Your task to perform on an android device: Search for Italian restaurants on Maps Image 0: 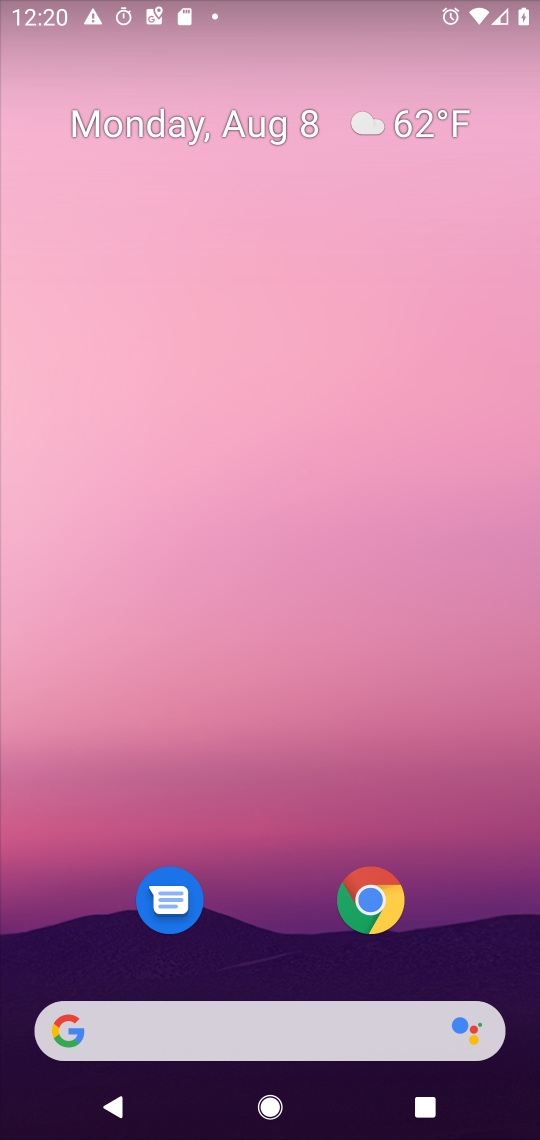
Step 0: press home button
Your task to perform on an android device: Search for Italian restaurants on Maps Image 1: 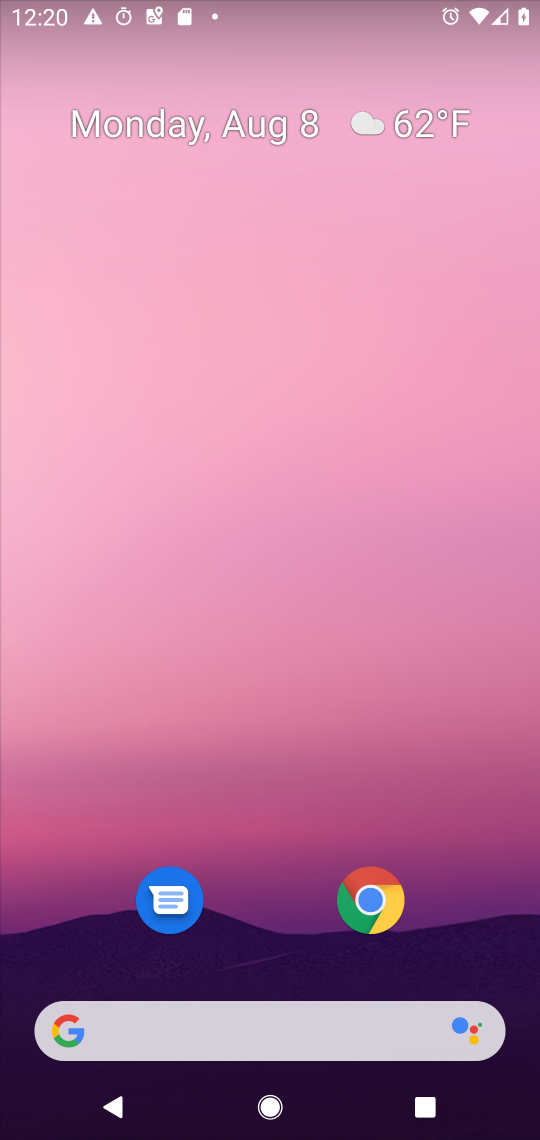
Step 1: drag from (274, 889) to (271, 79)
Your task to perform on an android device: Search for Italian restaurants on Maps Image 2: 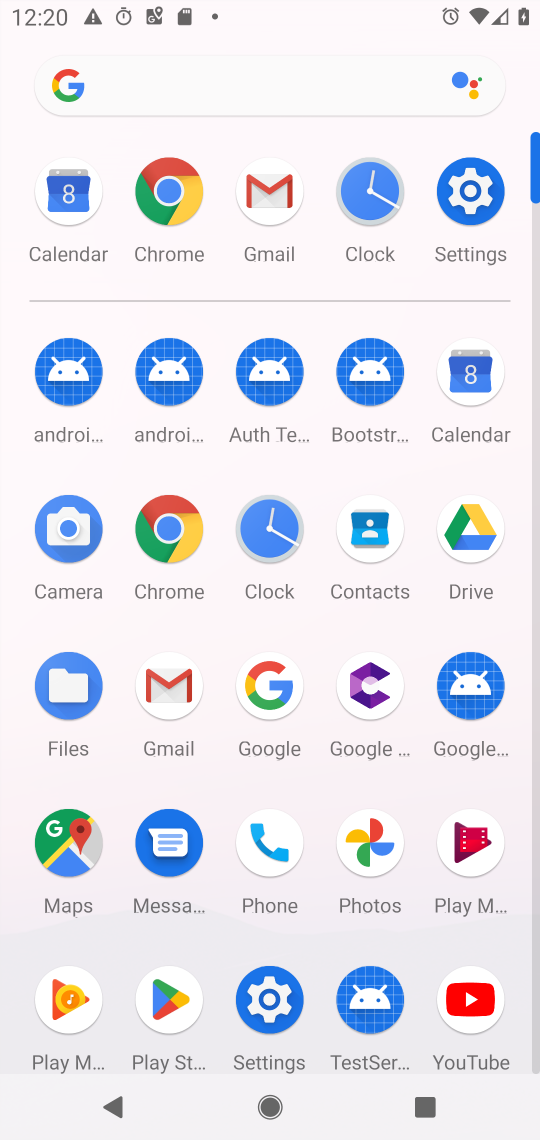
Step 2: click (68, 839)
Your task to perform on an android device: Search for Italian restaurants on Maps Image 3: 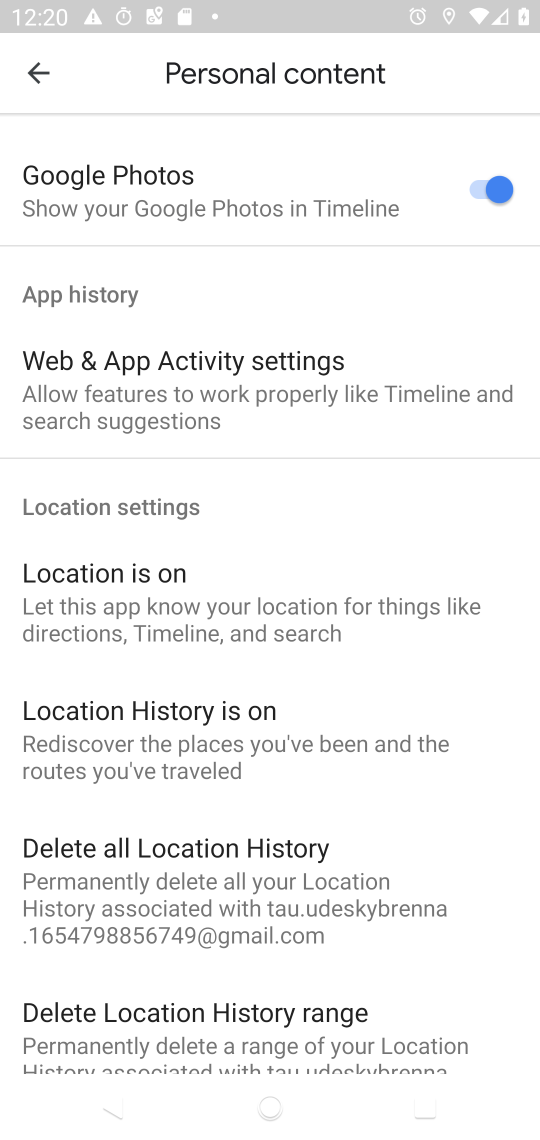
Step 3: click (38, 58)
Your task to perform on an android device: Search for Italian restaurants on Maps Image 4: 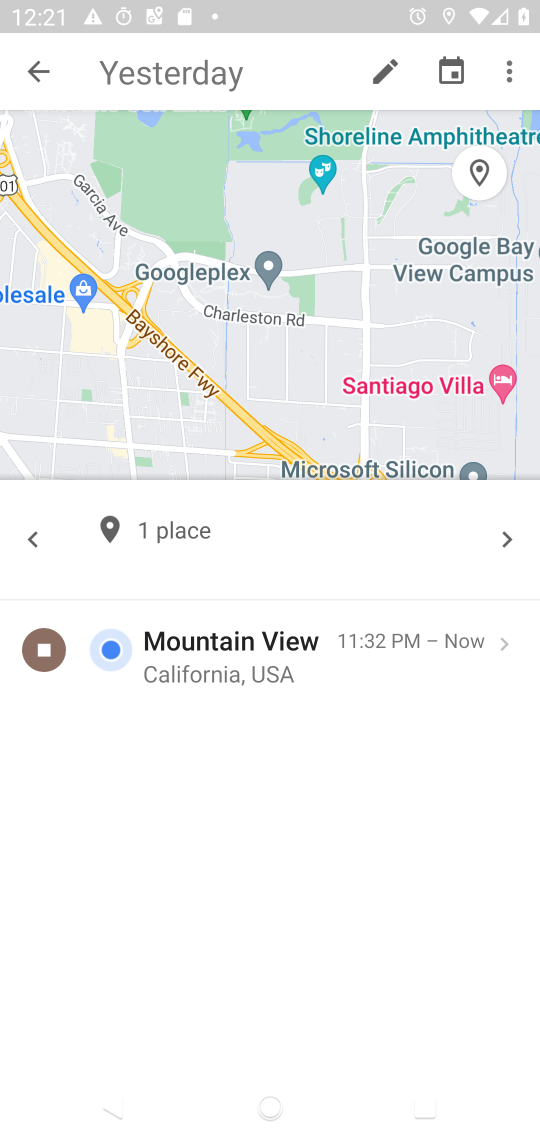
Step 4: click (46, 77)
Your task to perform on an android device: Search for Italian restaurants on Maps Image 5: 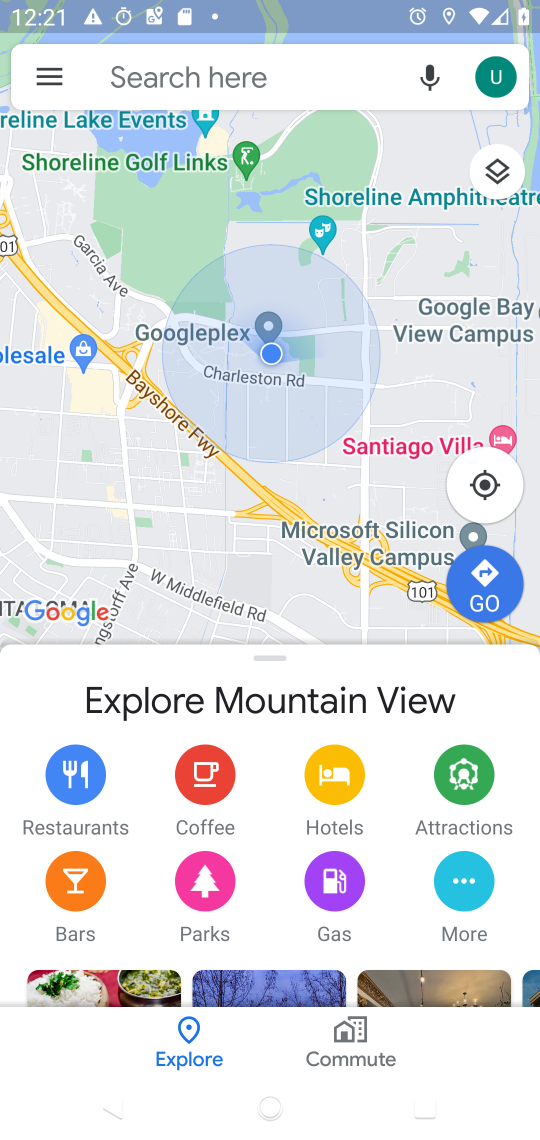
Step 5: click (164, 71)
Your task to perform on an android device: Search for Italian restaurants on Maps Image 6: 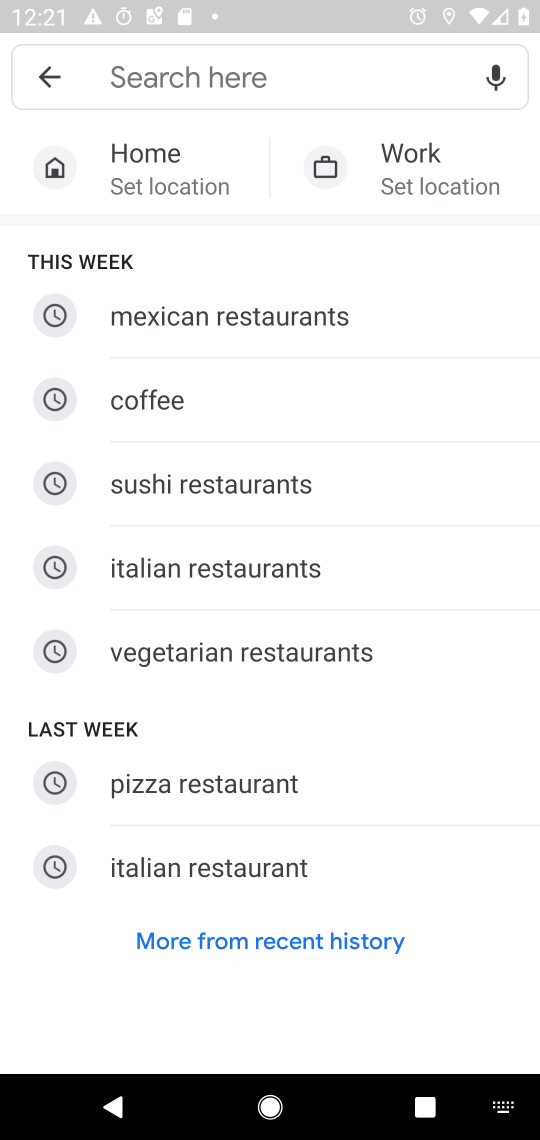
Step 6: click (234, 567)
Your task to perform on an android device: Search for Italian restaurants on Maps Image 7: 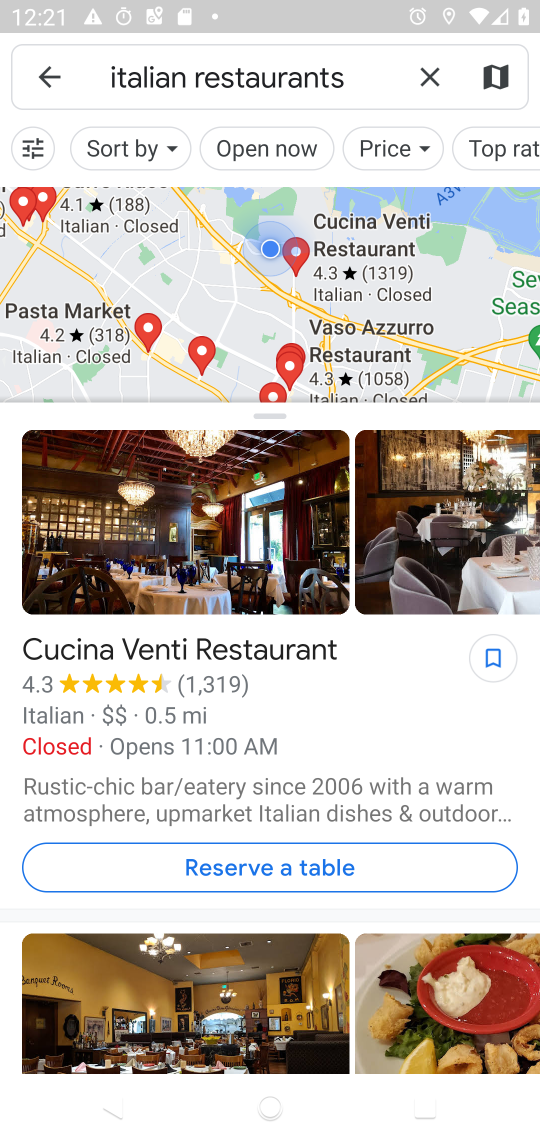
Step 7: drag from (297, 802) to (274, 243)
Your task to perform on an android device: Search for Italian restaurants on Maps Image 8: 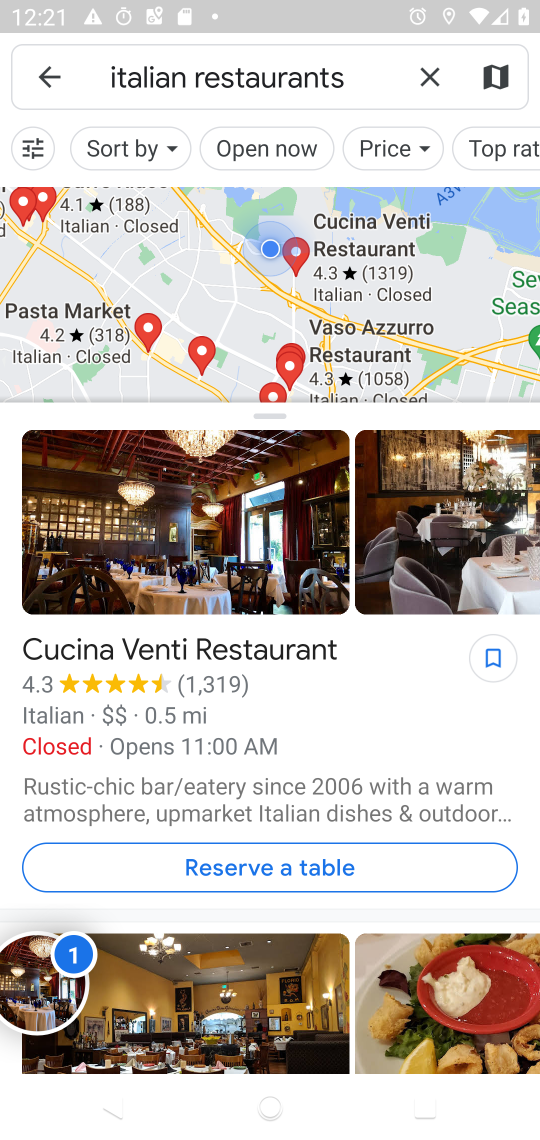
Step 8: drag from (32, 991) to (302, 1082)
Your task to perform on an android device: Search for Italian restaurants on Maps Image 9: 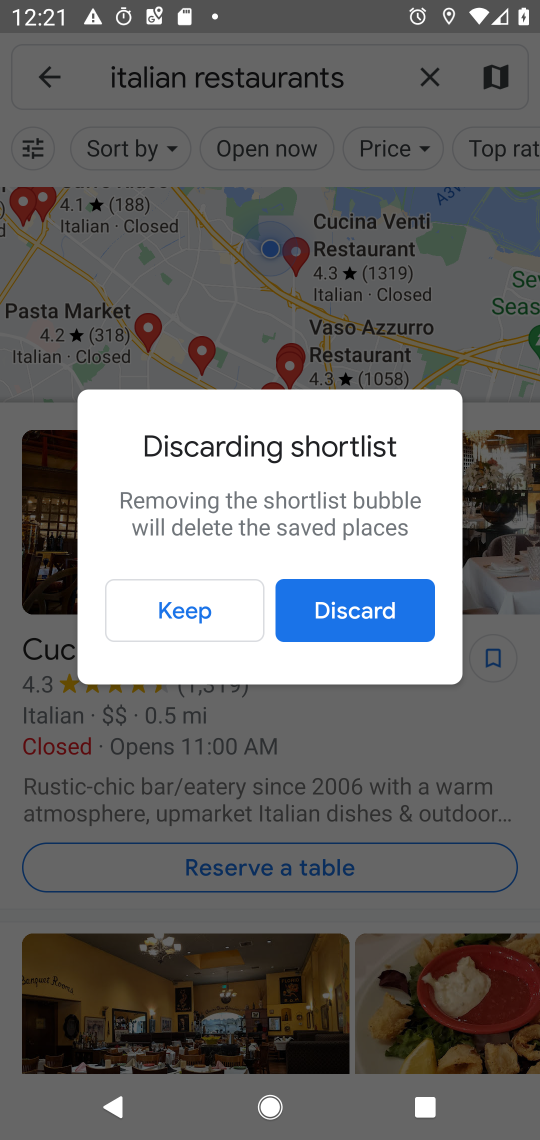
Step 9: click (354, 605)
Your task to perform on an android device: Search for Italian restaurants on Maps Image 10: 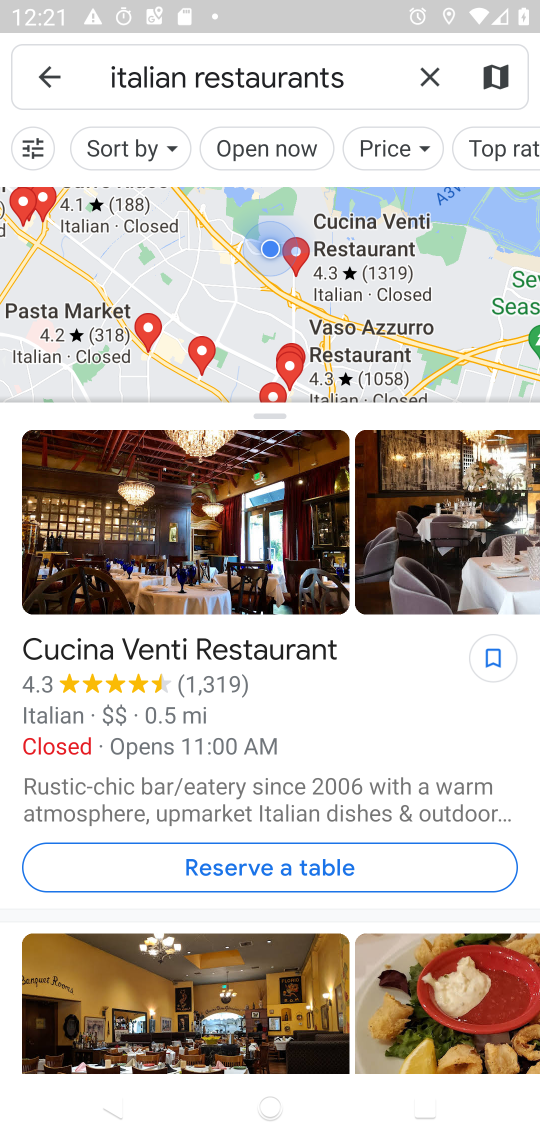
Step 10: task complete